Your task to perform on an android device: Open Android settings Image 0: 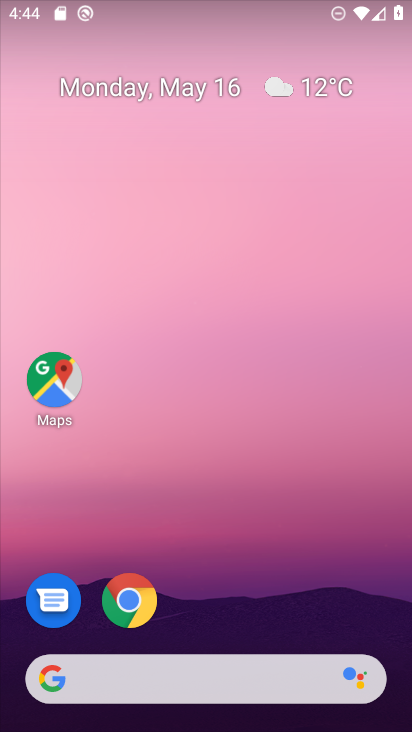
Step 0: drag from (272, 627) to (296, 137)
Your task to perform on an android device: Open Android settings Image 1: 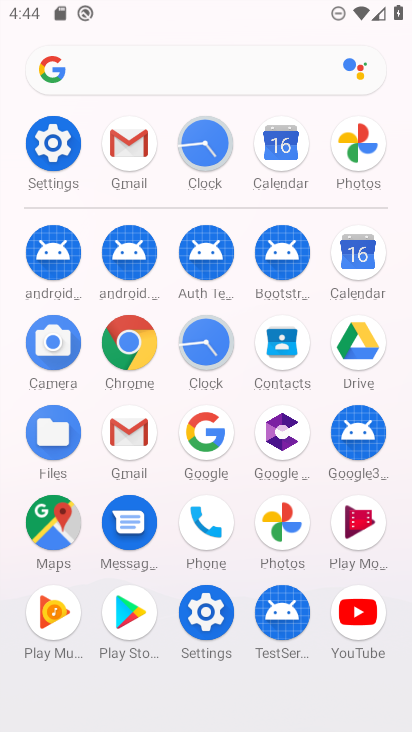
Step 1: click (39, 141)
Your task to perform on an android device: Open Android settings Image 2: 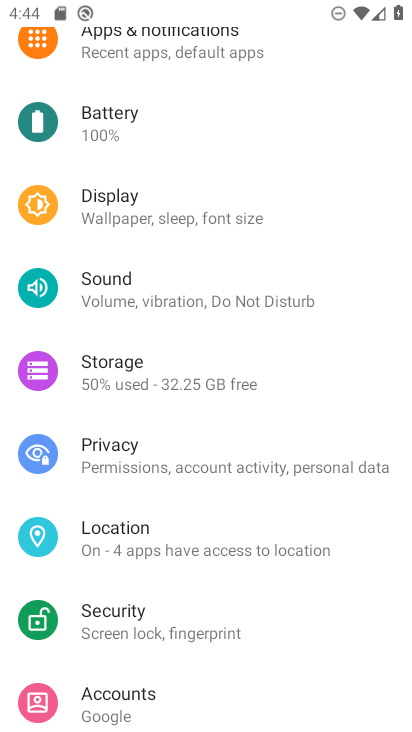
Step 2: task complete